Your task to perform on an android device: Open location settings Image 0: 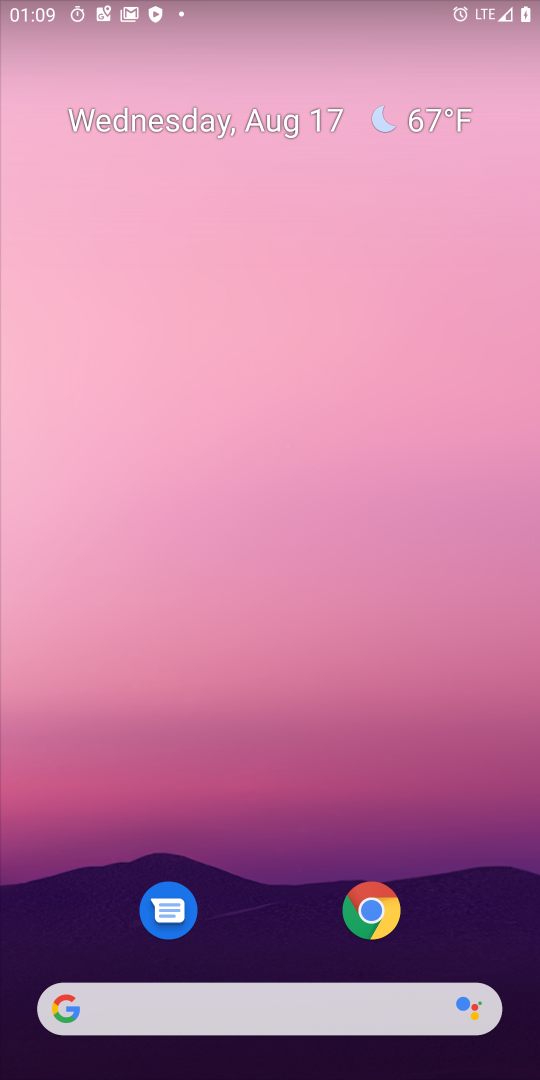
Step 0: drag from (290, 764) to (332, 65)
Your task to perform on an android device: Open location settings Image 1: 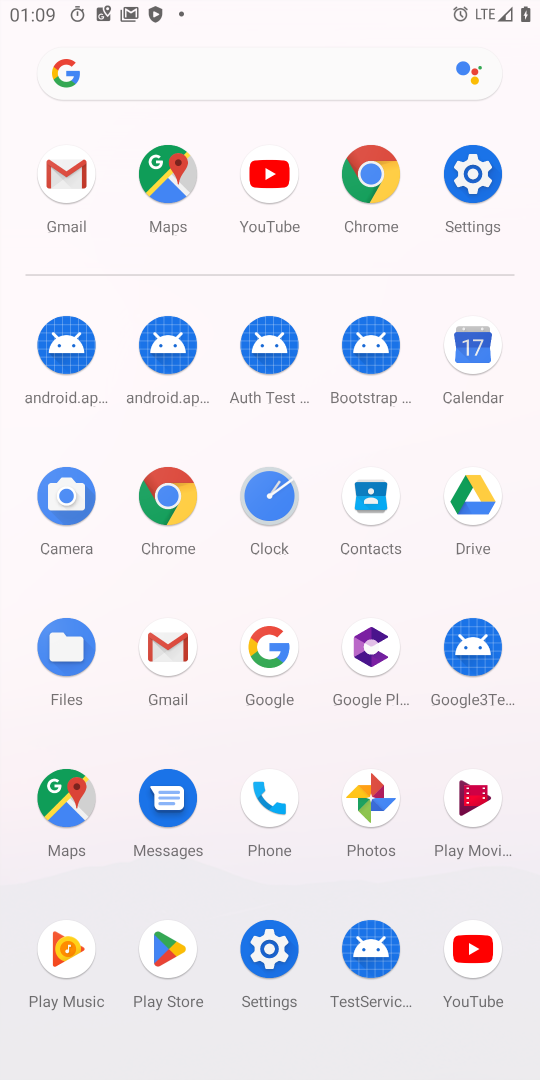
Step 1: click (260, 934)
Your task to perform on an android device: Open location settings Image 2: 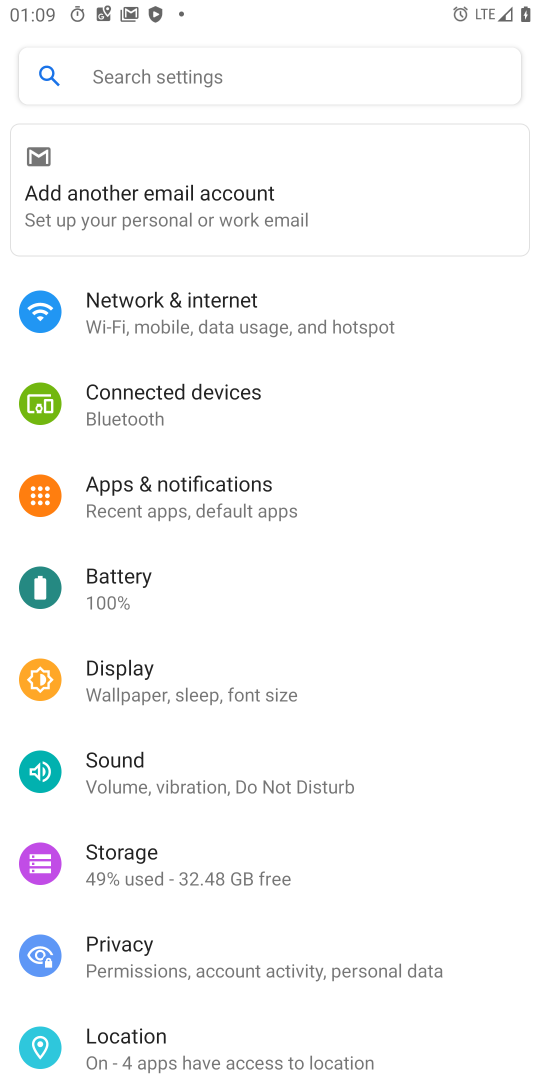
Step 2: drag from (267, 940) to (310, 469)
Your task to perform on an android device: Open location settings Image 3: 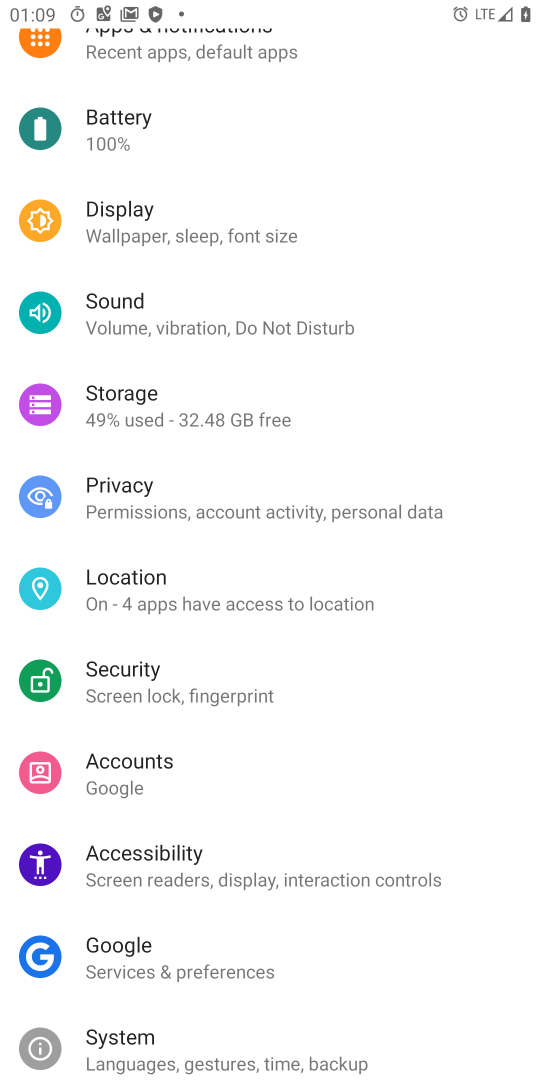
Step 3: click (165, 609)
Your task to perform on an android device: Open location settings Image 4: 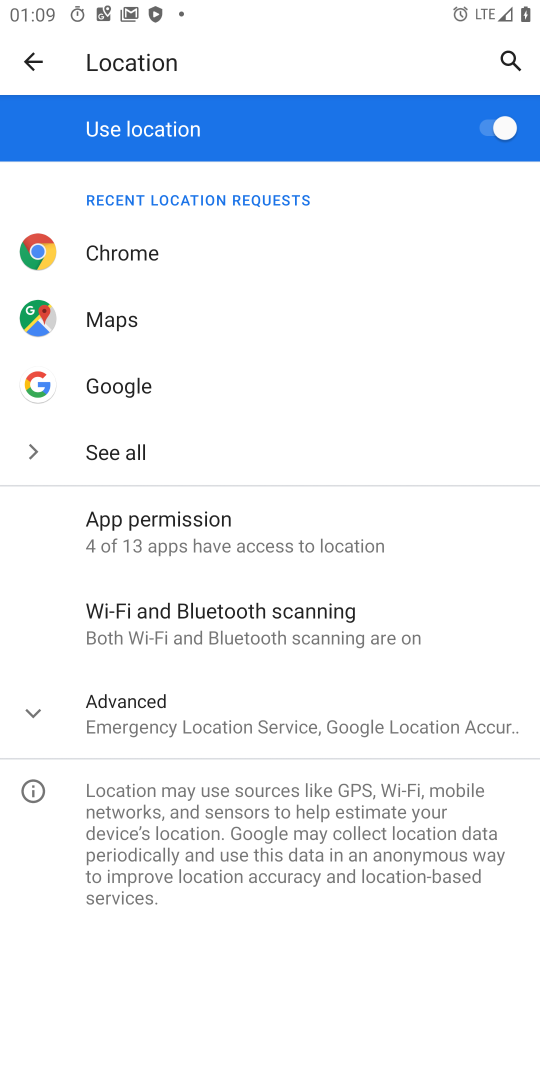
Step 4: task complete